Your task to perform on an android device: Search for macbook air on bestbuy.com, select the first entry, add it to the cart, then select checkout. Image 0: 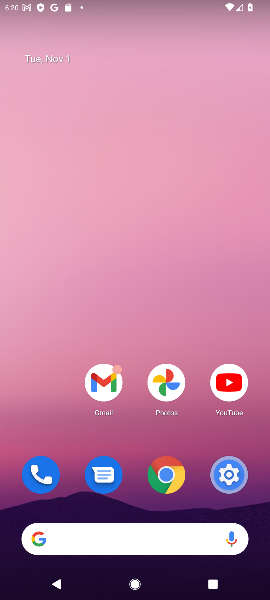
Step 0: click (108, 536)
Your task to perform on an android device: Search for macbook air on bestbuy.com, select the first entry, add it to the cart, then select checkout. Image 1: 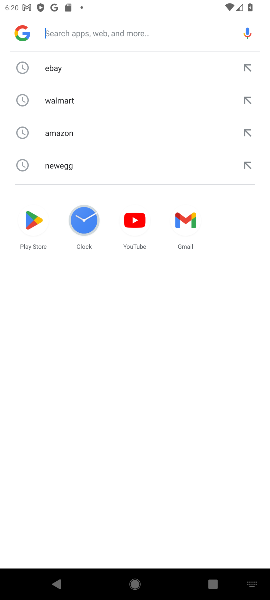
Step 1: type "bestbuy"
Your task to perform on an android device: Search for macbook air on bestbuy.com, select the first entry, add it to the cart, then select checkout. Image 2: 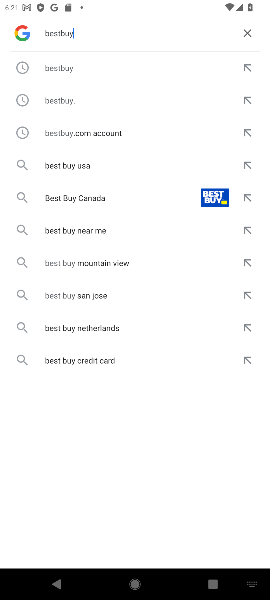
Step 2: click (59, 69)
Your task to perform on an android device: Search for macbook air on bestbuy.com, select the first entry, add it to the cart, then select checkout. Image 3: 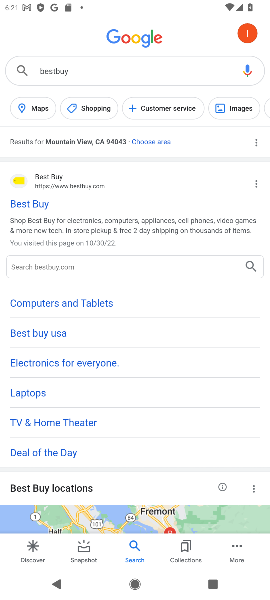
Step 3: click (36, 211)
Your task to perform on an android device: Search for macbook air on bestbuy.com, select the first entry, add it to the cart, then select checkout. Image 4: 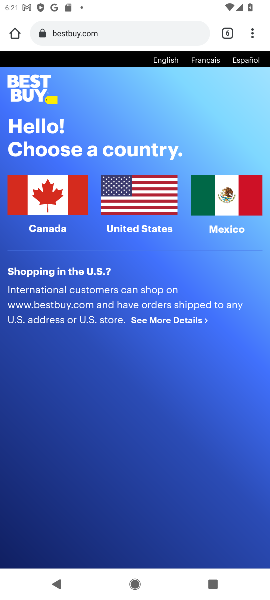
Step 4: click (127, 206)
Your task to perform on an android device: Search for macbook air on bestbuy.com, select the first entry, add it to the cart, then select checkout. Image 5: 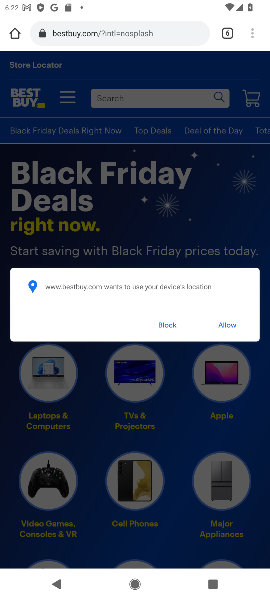
Step 5: click (164, 322)
Your task to perform on an android device: Search for macbook air on bestbuy.com, select the first entry, add it to the cart, then select checkout. Image 6: 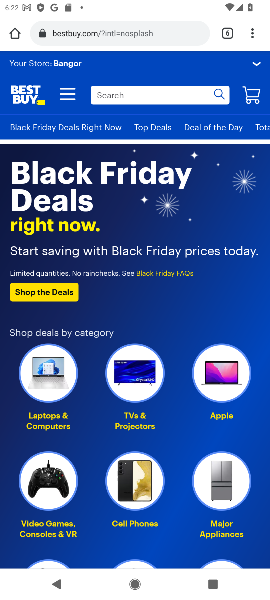
Step 6: click (129, 90)
Your task to perform on an android device: Search for macbook air on bestbuy.com, select the first entry, add it to the cart, then select checkout. Image 7: 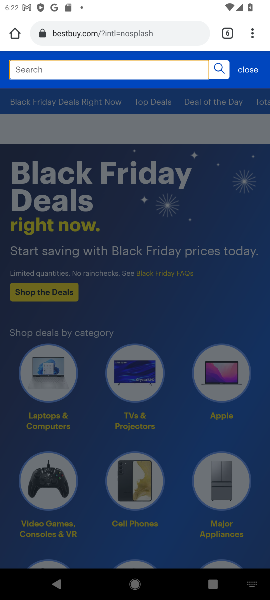
Step 7: type " macbook air "
Your task to perform on an android device: Search for macbook air on bestbuy.com, select the first entry, add it to the cart, then select checkout. Image 8: 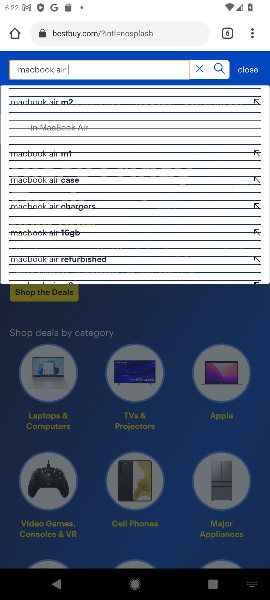
Step 8: click (53, 101)
Your task to perform on an android device: Search for macbook air on bestbuy.com, select the first entry, add it to the cart, then select checkout. Image 9: 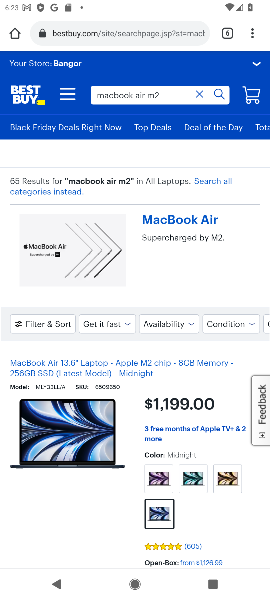
Step 9: click (185, 426)
Your task to perform on an android device: Search for macbook air on bestbuy.com, select the first entry, add it to the cart, then select checkout. Image 10: 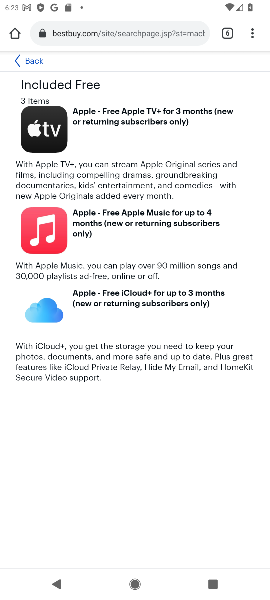
Step 10: drag from (151, 451) to (158, 326)
Your task to perform on an android device: Search for macbook air on bestbuy.com, select the first entry, add it to the cart, then select checkout. Image 11: 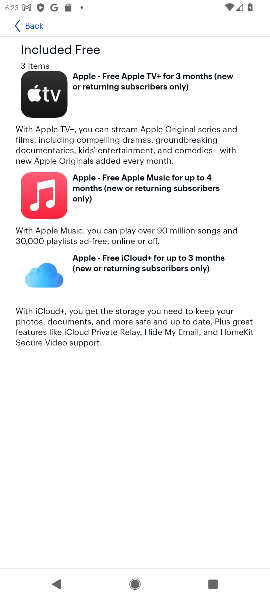
Step 11: drag from (166, 376) to (175, 233)
Your task to perform on an android device: Search for macbook air on bestbuy.com, select the first entry, add it to the cart, then select checkout. Image 12: 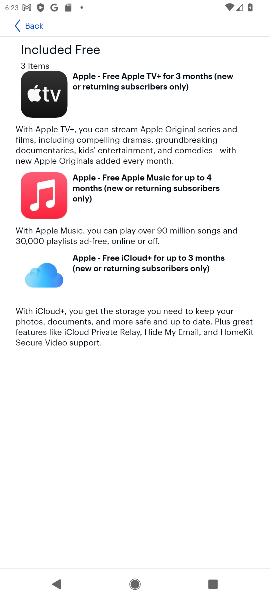
Step 12: click (134, 84)
Your task to perform on an android device: Search for macbook air on bestbuy.com, select the first entry, add it to the cart, then select checkout. Image 13: 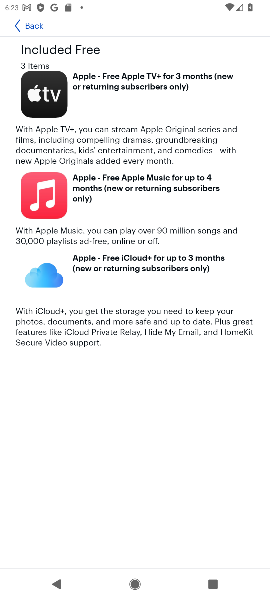
Step 13: click (22, 24)
Your task to perform on an android device: Search for macbook air on bestbuy.com, select the first entry, add it to the cart, then select checkout. Image 14: 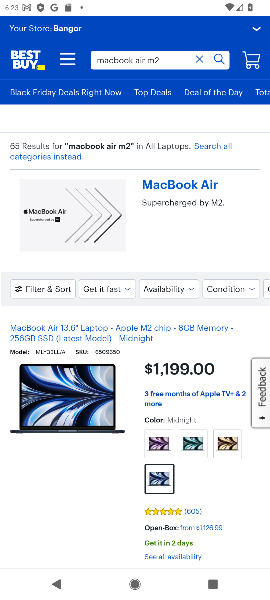
Step 14: task complete